Your task to perform on an android device: turn smart compose on in the gmail app Image 0: 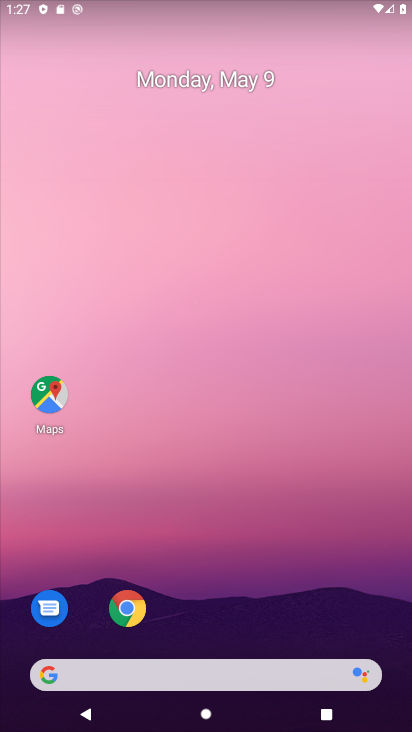
Step 0: drag from (226, 604) to (219, 148)
Your task to perform on an android device: turn smart compose on in the gmail app Image 1: 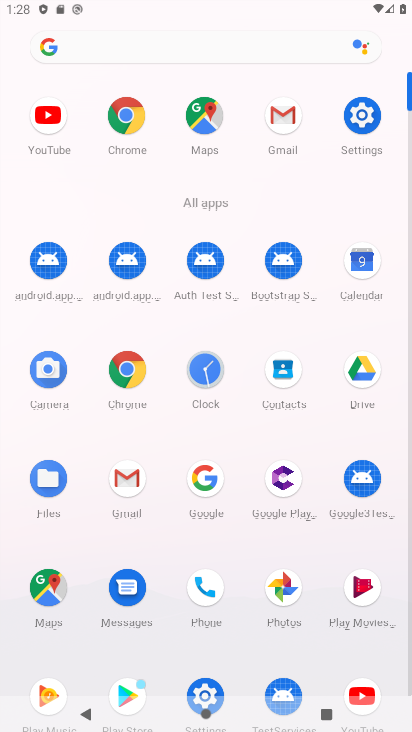
Step 1: click (292, 116)
Your task to perform on an android device: turn smart compose on in the gmail app Image 2: 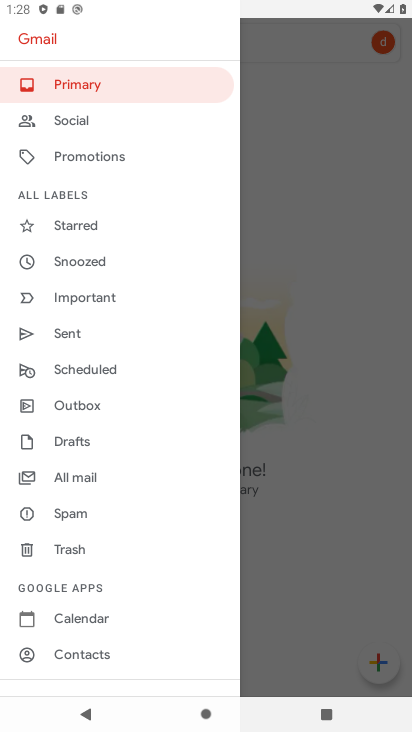
Step 2: drag from (121, 610) to (66, 124)
Your task to perform on an android device: turn smart compose on in the gmail app Image 3: 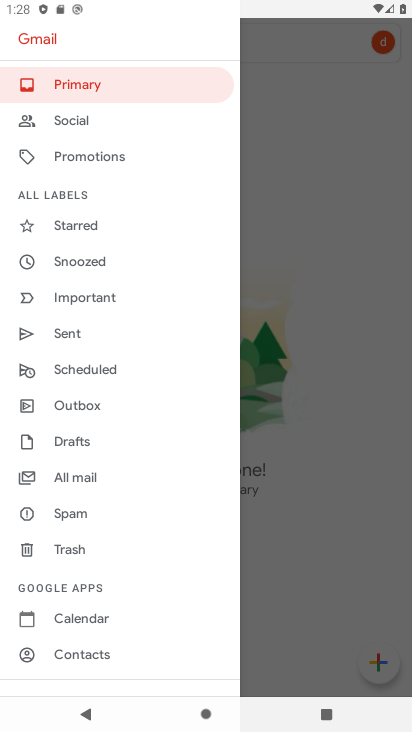
Step 3: drag from (105, 631) to (36, 224)
Your task to perform on an android device: turn smart compose on in the gmail app Image 4: 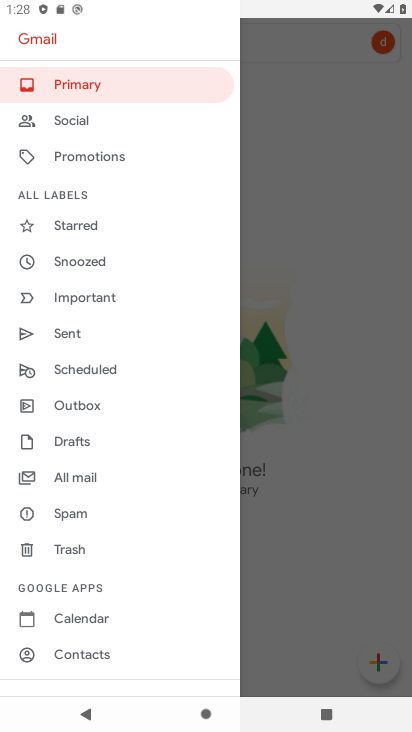
Step 4: drag from (71, 594) to (45, 164)
Your task to perform on an android device: turn smart compose on in the gmail app Image 5: 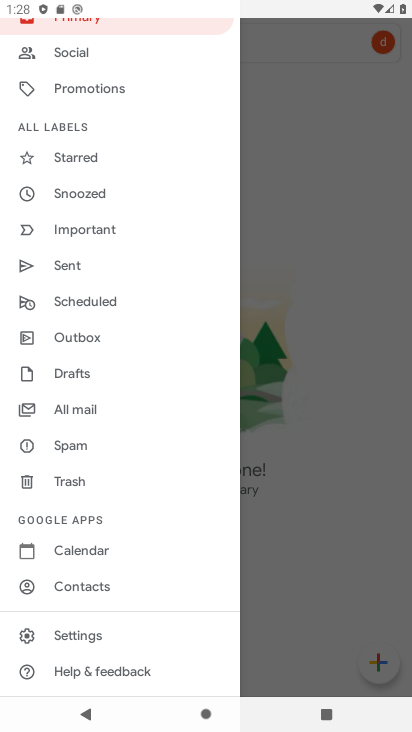
Step 5: click (103, 628)
Your task to perform on an android device: turn smart compose on in the gmail app Image 6: 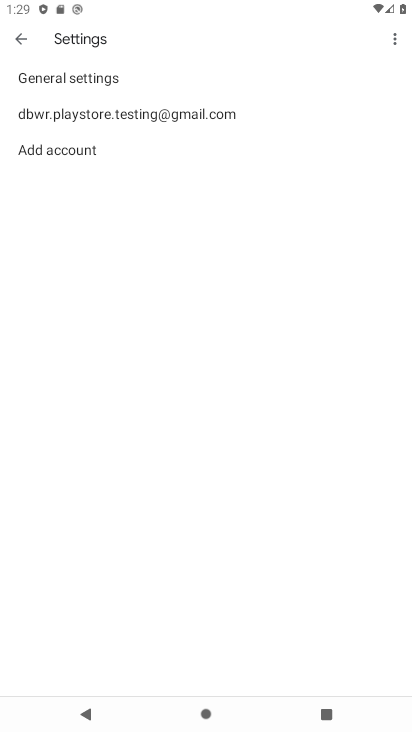
Step 6: click (83, 113)
Your task to perform on an android device: turn smart compose on in the gmail app Image 7: 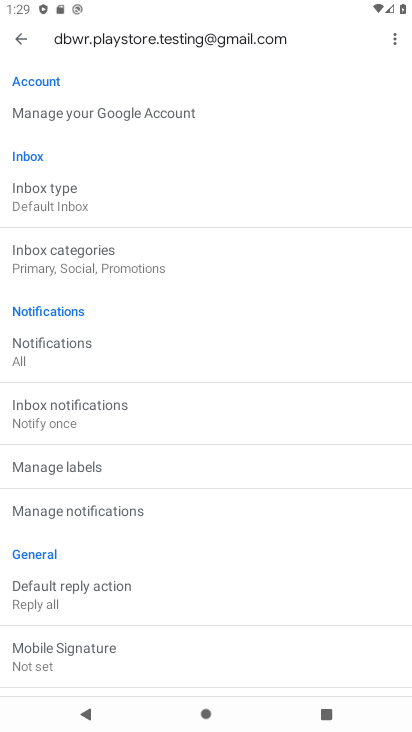
Step 7: task complete